Your task to perform on an android device: check android version Image 0: 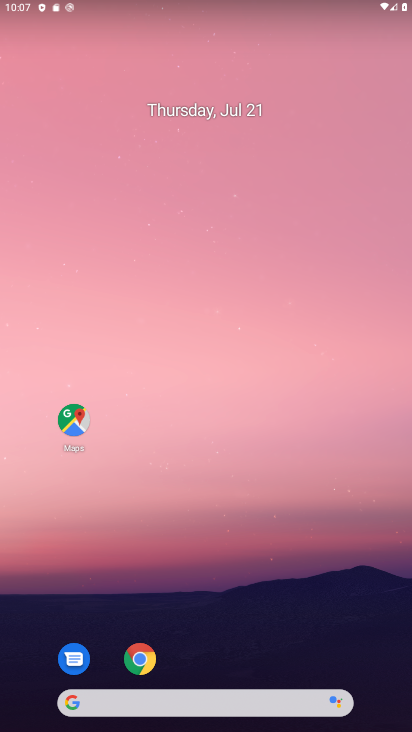
Step 0: drag from (222, 728) to (216, 325)
Your task to perform on an android device: check android version Image 1: 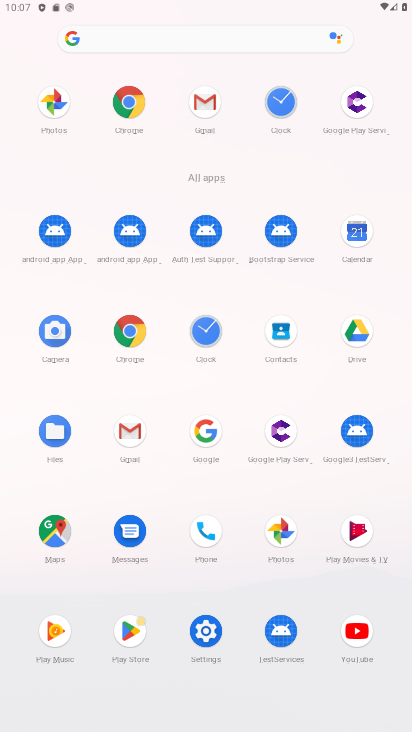
Step 1: click (201, 630)
Your task to perform on an android device: check android version Image 2: 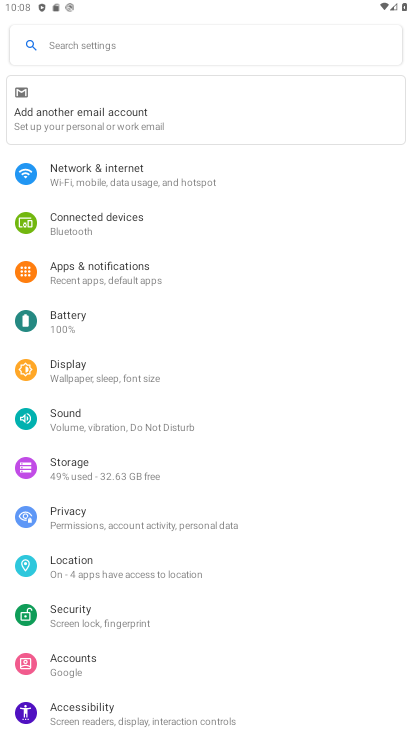
Step 2: drag from (173, 681) to (139, 372)
Your task to perform on an android device: check android version Image 3: 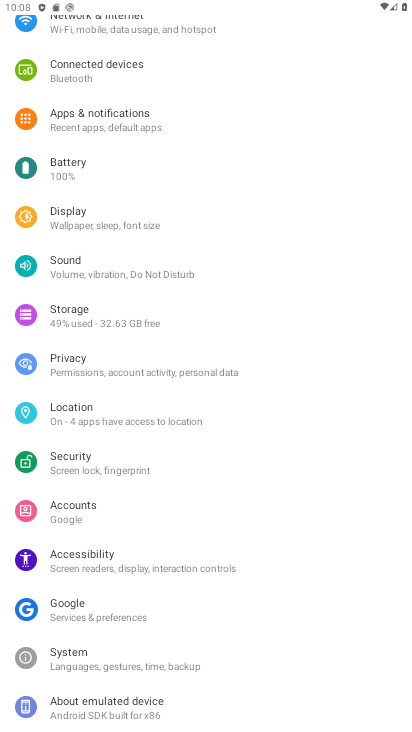
Step 3: click (109, 705)
Your task to perform on an android device: check android version Image 4: 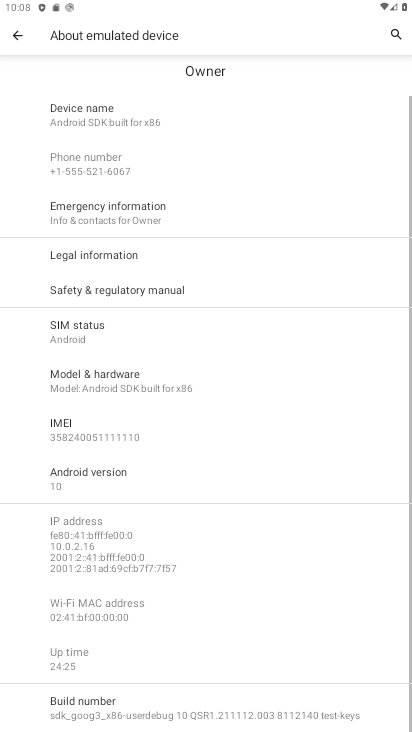
Step 4: click (87, 472)
Your task to perform on an android device: check android version Image 5: 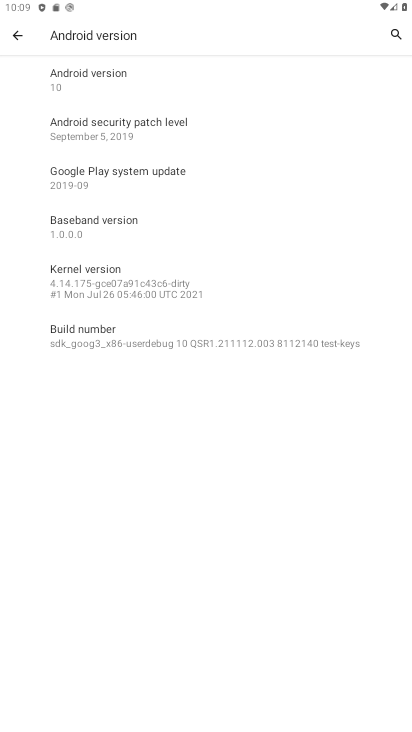
Step 5: task complete